Your task to perform on an android device: See recent photos Image 0: 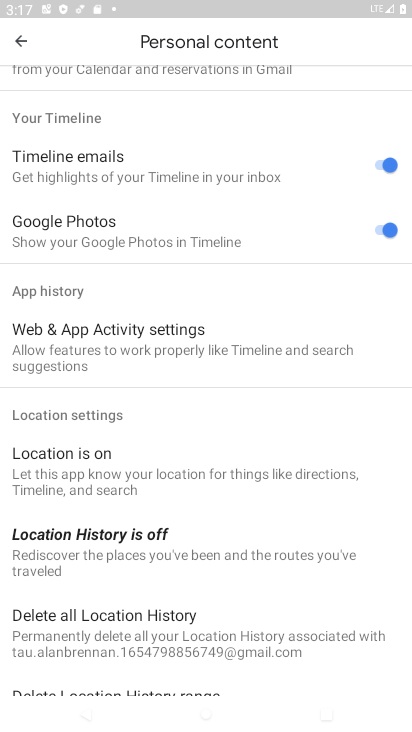
Step 0: press home button
Your task to perform on an android device: See recent photos Image 1: 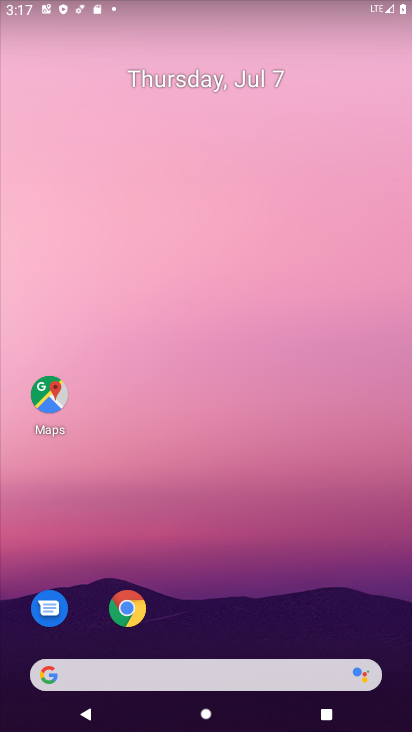
Step 1: drag from (369, 618) to (308, 159)
Your task to perform on an android device: See recent photos Image 2: 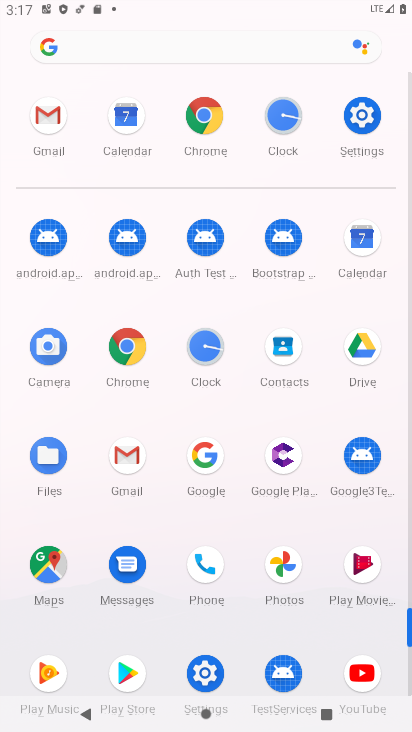
Step 2: click (287, 564)
Your task to perform on an android device: See recent photos Image 3: 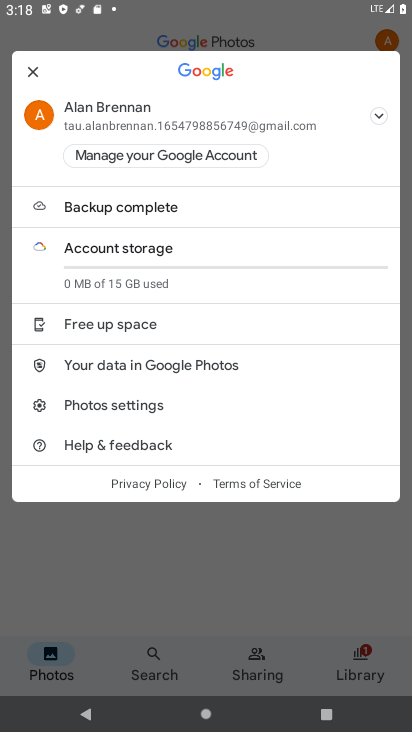
Step 3: click (207, 549)
Your task to perform on an android device: See recent photos Image 4: 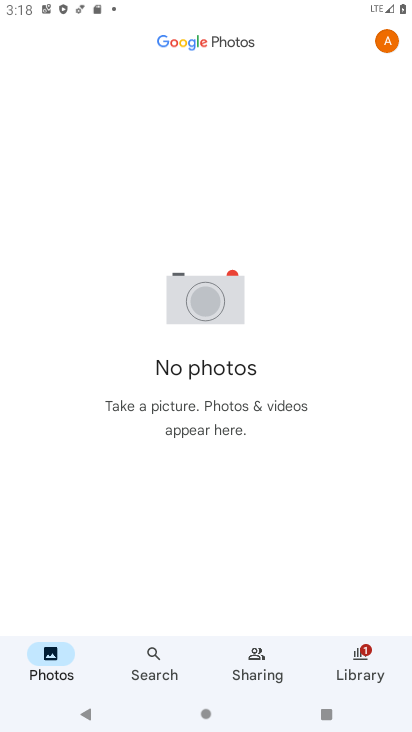
Step 4: task complete